Your task to perform on an android device: Open Yahoo.com Image 0: 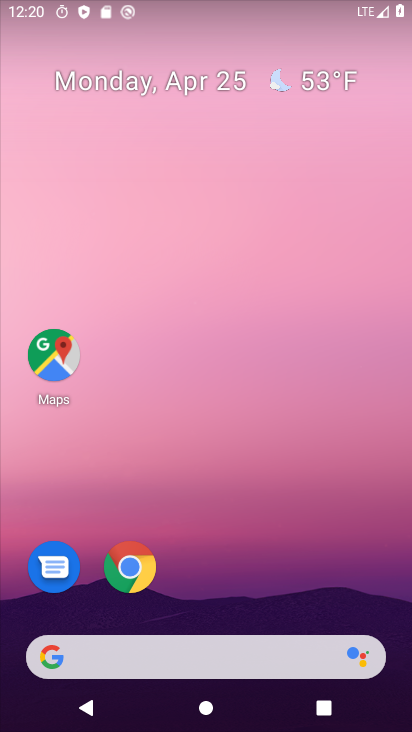
Step 0: click (280, 651)
Your task to perform on an android device: Open Yahoo.com Image 1: 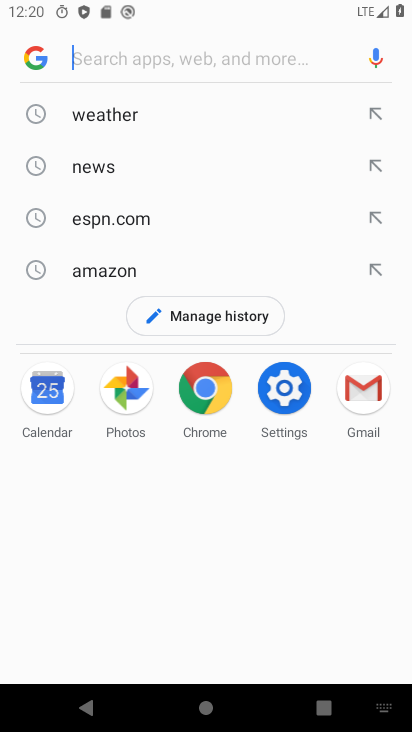
Step 1: type "yahoo.com"
Your task to perform on an android device: Open Yahoo.com Image 2: 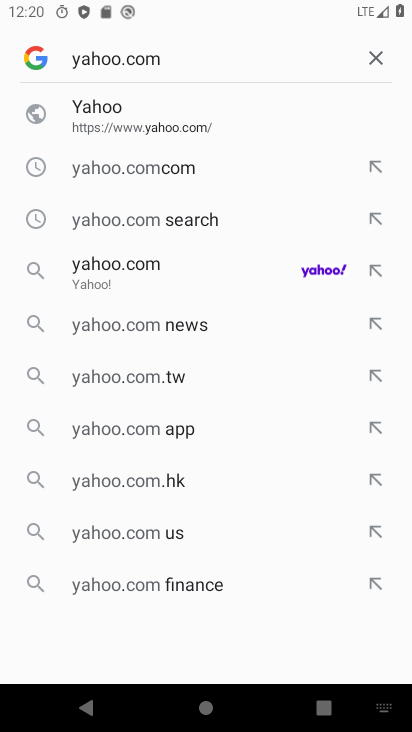
Step 2: click (241, 271)
Your task to perform on an android device: Open Yahoo.com Image 3: 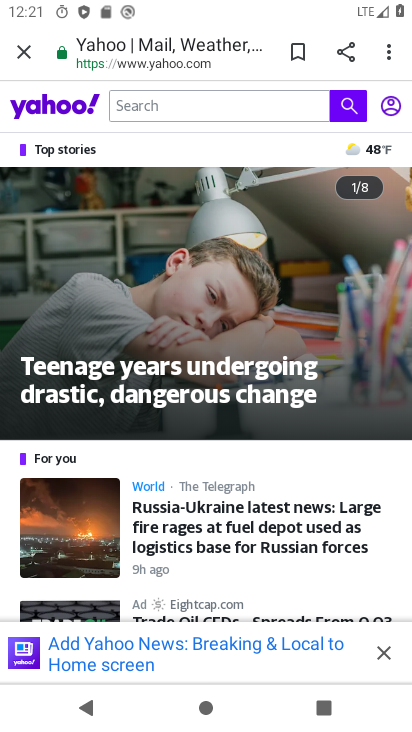
Step 3: task complete